Your task to perform on an android device: Open Youtube and go to "Your channel" Image 0: 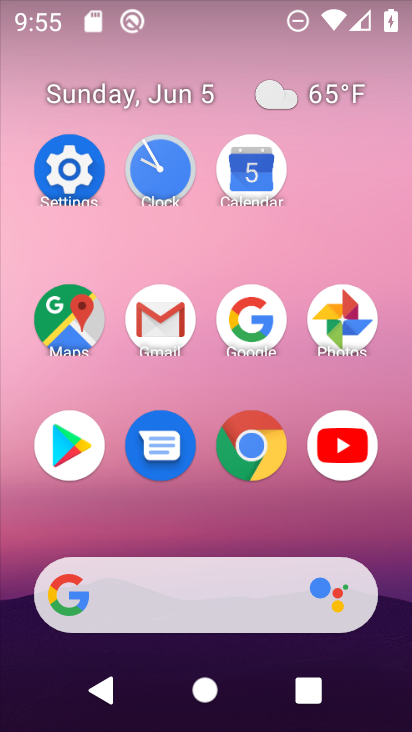
Step 0: click (353, 443)
Your task to perform on an android device: Open Youtube and go to "Your channel" Image 1: 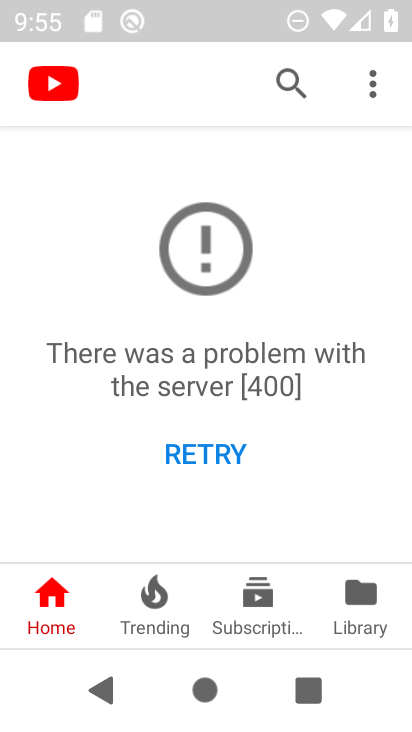
Step 1: click (382, 80)
Your task to perform on an android device: Open Youtube and go to "Your channel" Image 2: 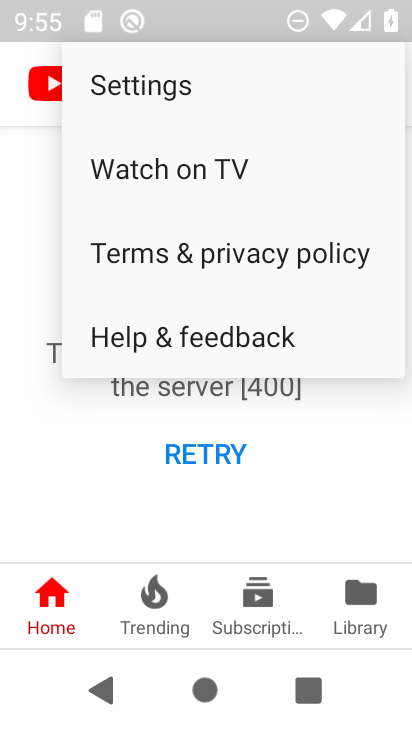
Step 2: click (347, 447)
Your task to perform on an android device: Open Youtube and go to "Your channel" Image 3: 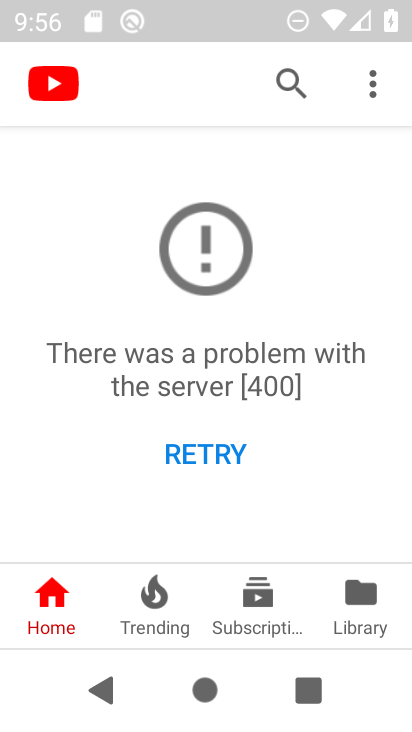
Step 3: task complete